Your task to perform on an android device: Open Chrome and go to settings Image 0: 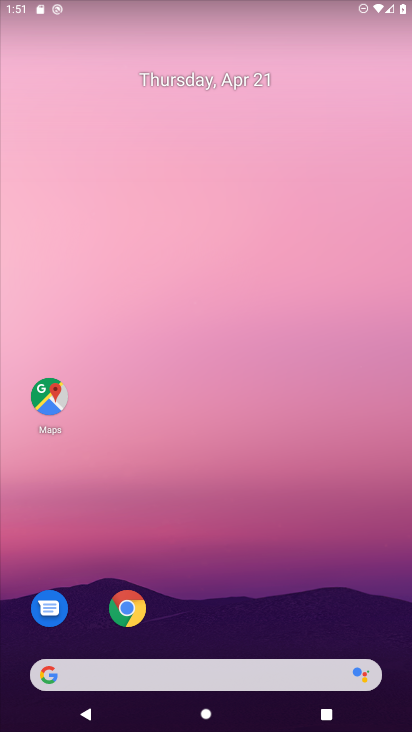
Step 0: drag from (233, 444) to (187, 83)
Your task to perform on an android device: Open Chrome and go to settings Image 1: 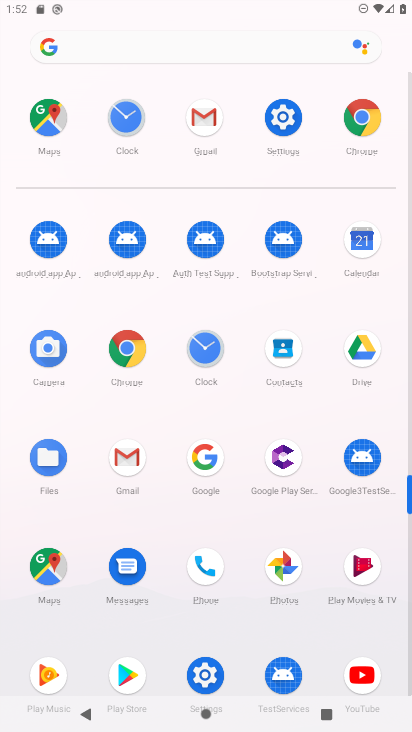
Step 1: click (272, 115)
Your task to perform on an android device: Open Chrome and go to settings Image 2: 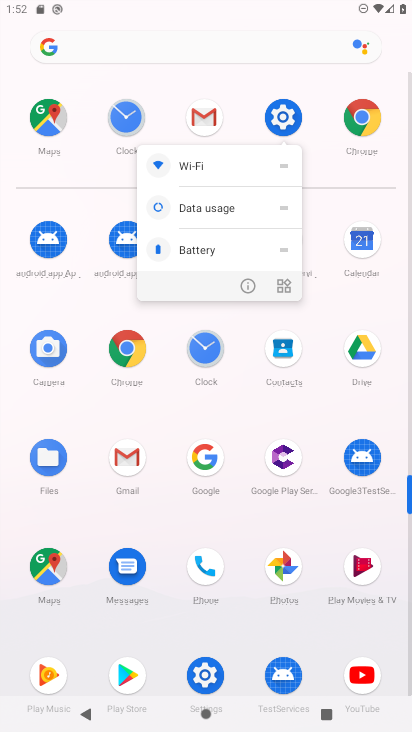
Step 2: click (354, 124)
Your task to perform on an android device: Open Chrome and go to settings Image 3: 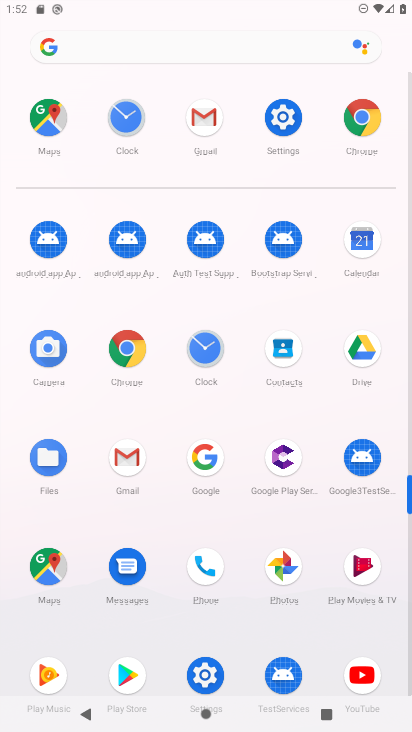
Step 3: click (354, 124)
Your task to perform on an android device: Open Chrome and go to settings Image 4: 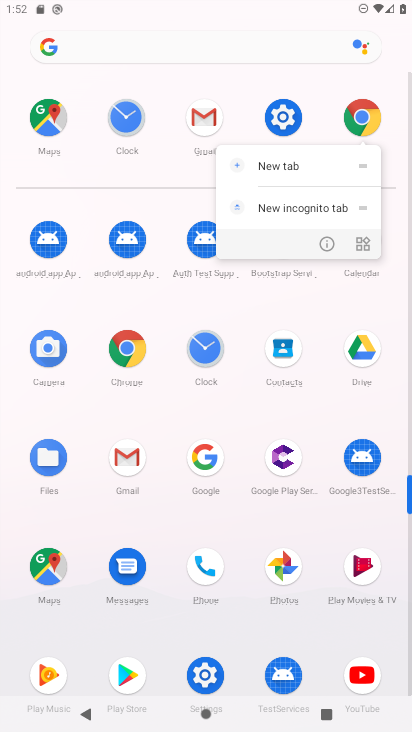
Step 4: click (354, 124)
Your task to perform on an android device: Open Chrome and go to settings Image 5: 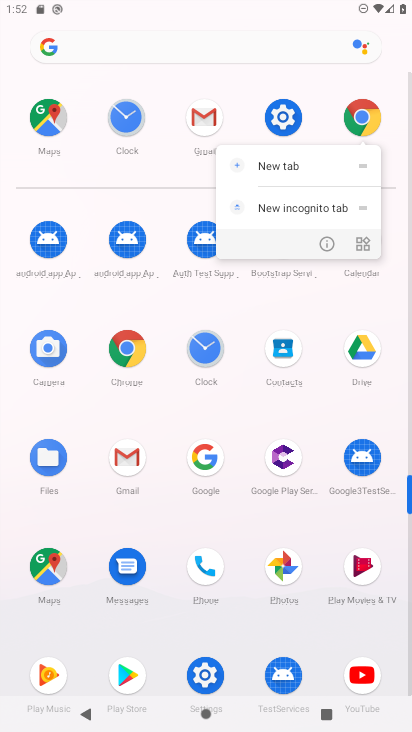
Step 5: click (354, 124)
Your task to perform on an android device: Open Chrome and go to settings Image 6: 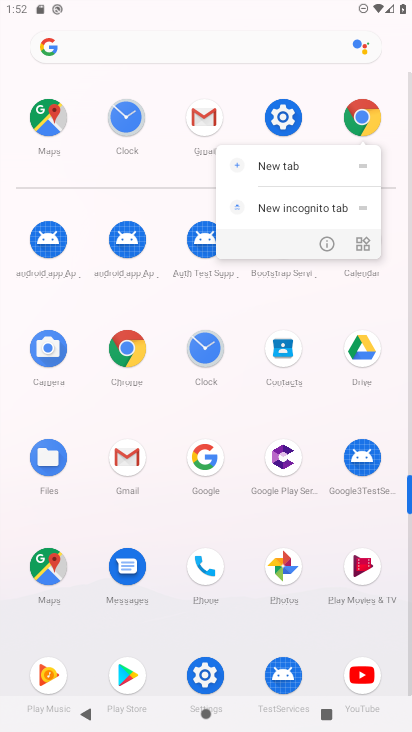
Step 6: click (354, 124)
Your task to perform on an android device: Open Chrome and go to settings Image 7: 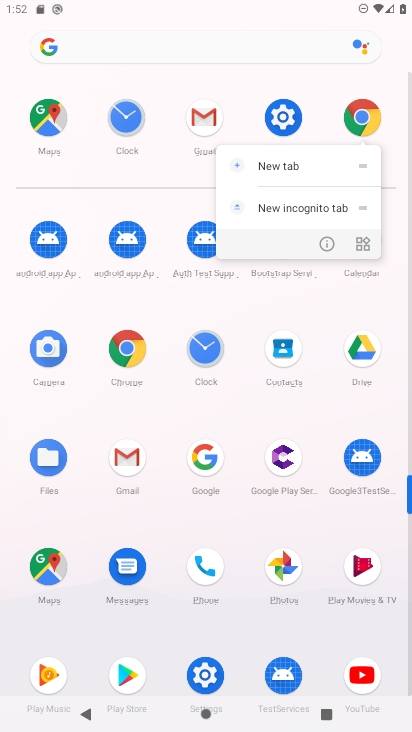
Step 7: click (354, 124)
Your task to perform on an android device: Open Chrome and go to settings Image 8: 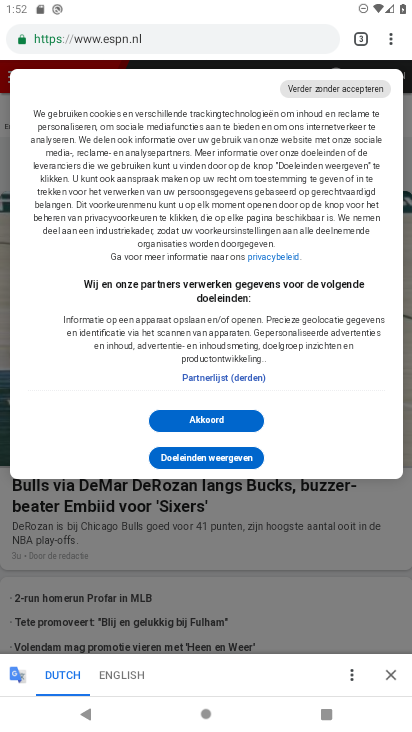
Step 8: click (354, 124)
Your task to perform on an android device: Open Chrome and go to settings Image 9: 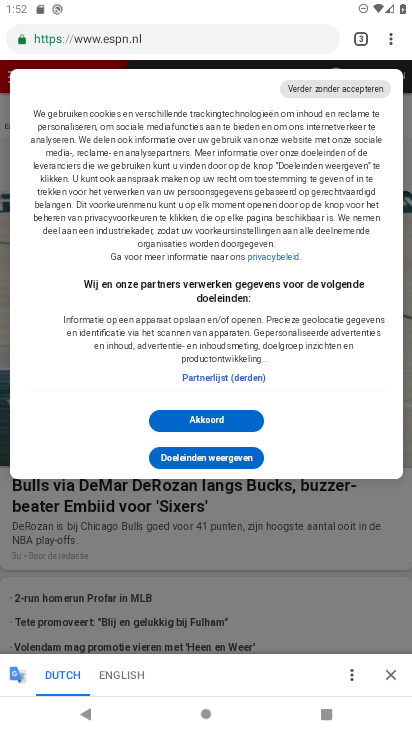
Step 9: task complete